Your task to perform on an android device: snooze an email in the gmail app Image 0: 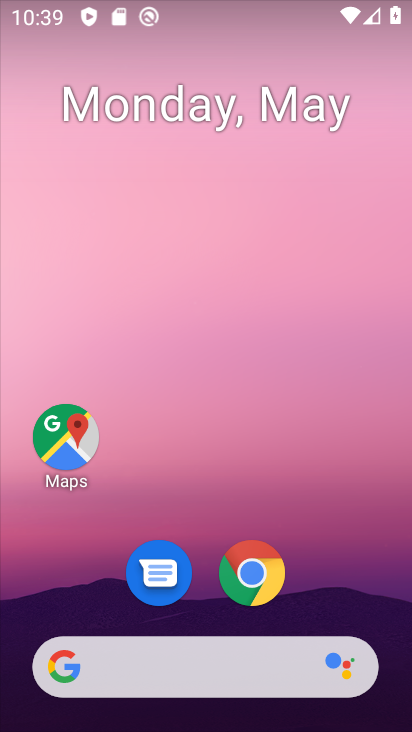
Step 0: drag from (211, 642) to (167, 280)
Your task to perform on an android device: snooze an email in the gmail app Image 1: 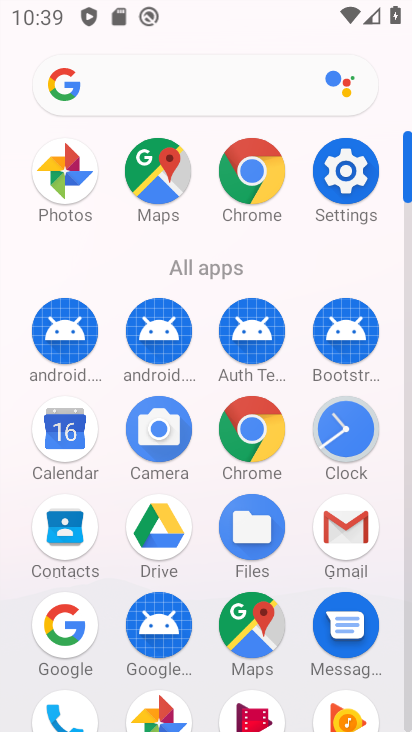
Step 1: click (360, 532)
Your task to perform on an android device: snooze an email in the gmail app Image 2: 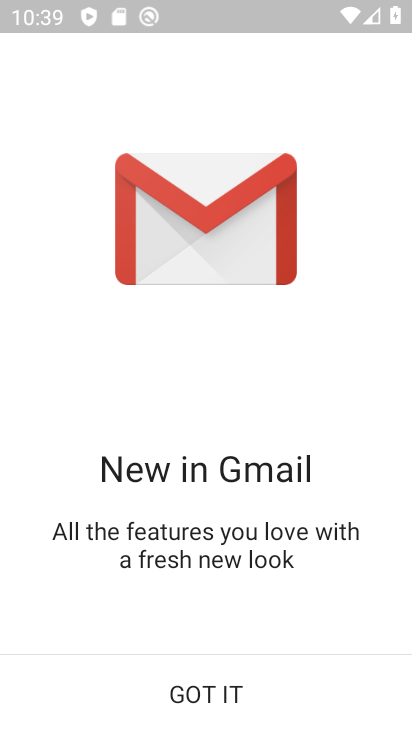
Step 2: click (239, 687)
Your task to perform on an android device: snooze an email in the gmail app Image 3: 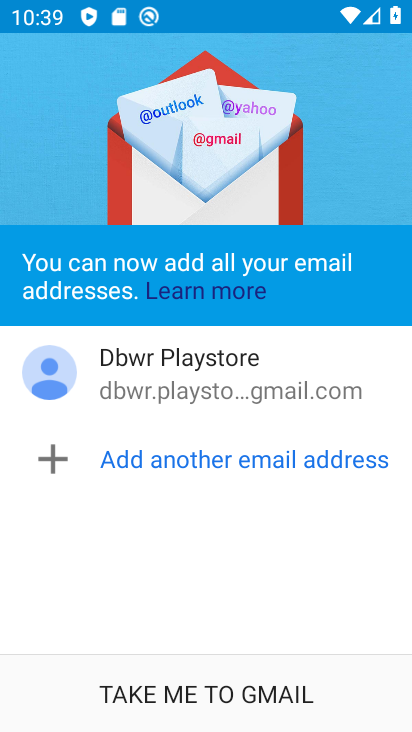
Step 3: click (216, 688)
Your task to perform on an android device: snooze an email in the gmail app Image 4: 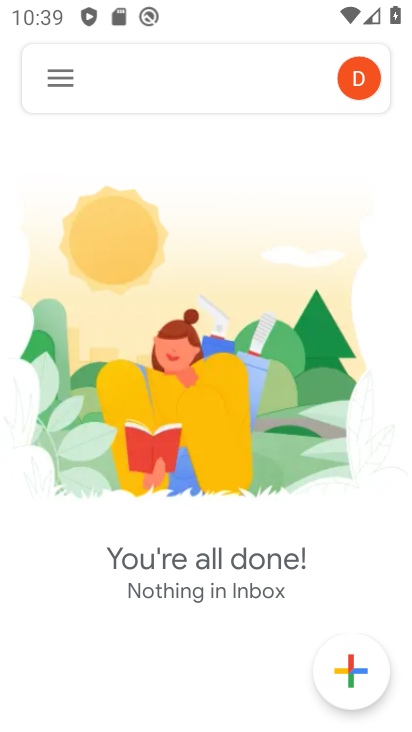
Step 4: click (56, 77)
Your task to perform on an android device: snooze an email in the gmail app Image 5: 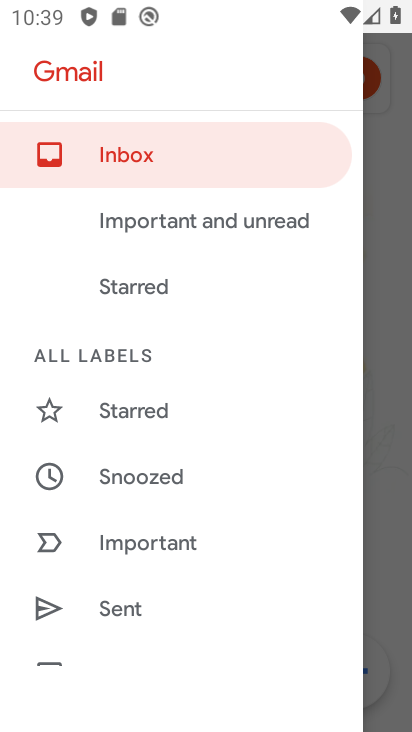
Step 5: click (163, 481)
Your task to perform on an android device: snooze an email in the gmail app Image 6: 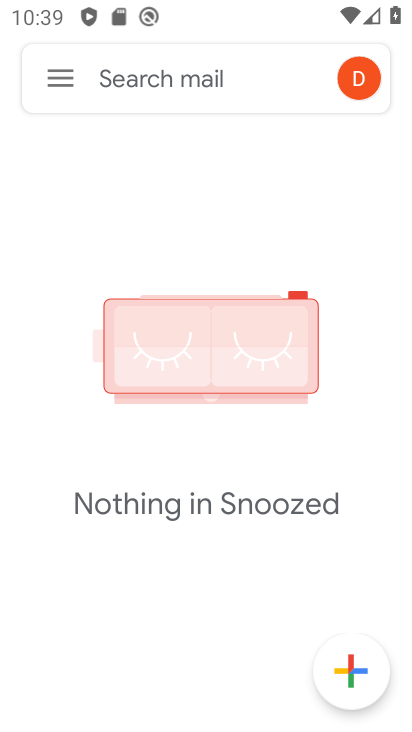
Step 6: task complete